Your task to perform on an android device: Open Chrome and go to settings Image 0: 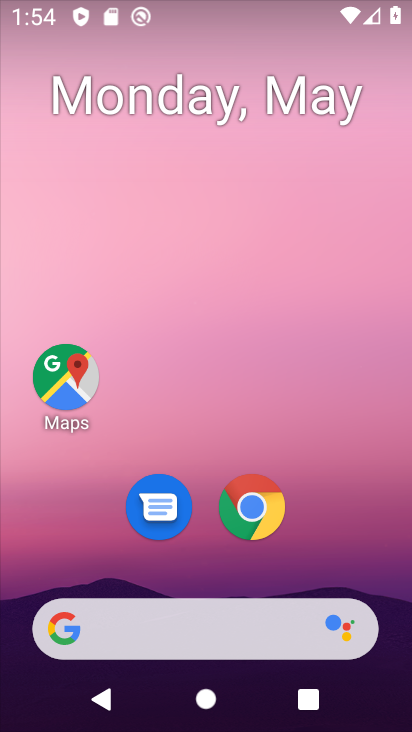
Step 0: click (266, 504)
Your task to perform on an android device: Open Chrome and go to settings Image 1: 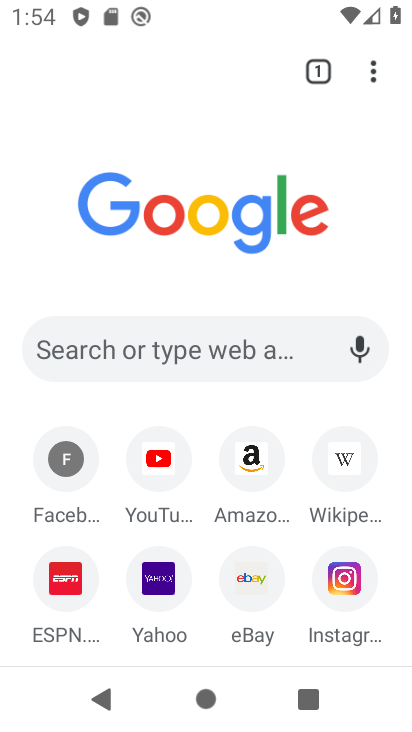
Step 1: click (376, 62)
Your task to perform on an android device: Open Chrome and go to settings Image 2: 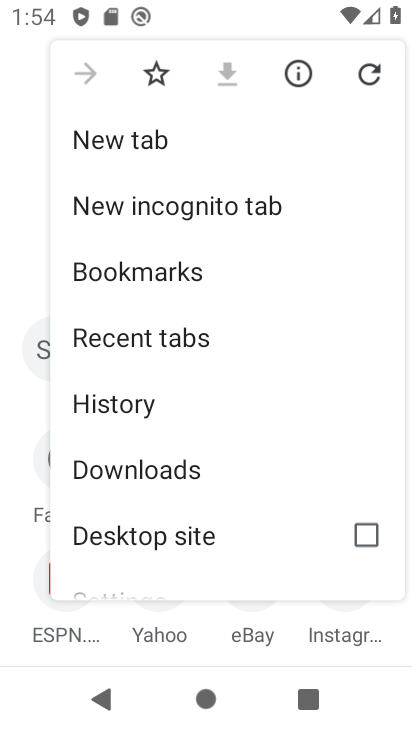
Step 2: drag from (225, 515) to (263, 118)
Your task to perform on an android device: Open Chrome and go to settings Image 3: 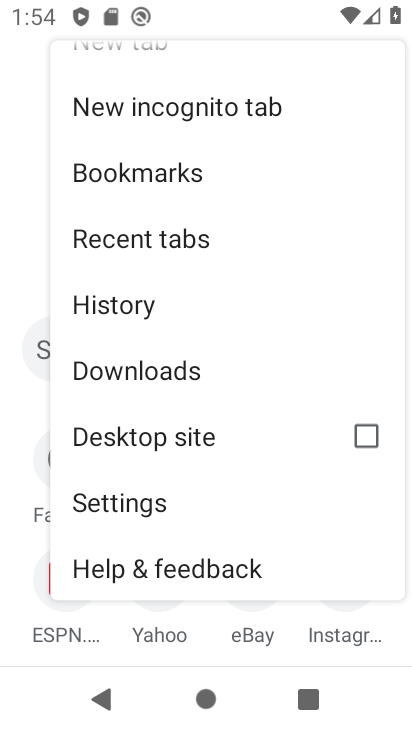
Step 3: click (147, 501)
Your task to perform on an android device: Open Chrome and go to settings Image 4: 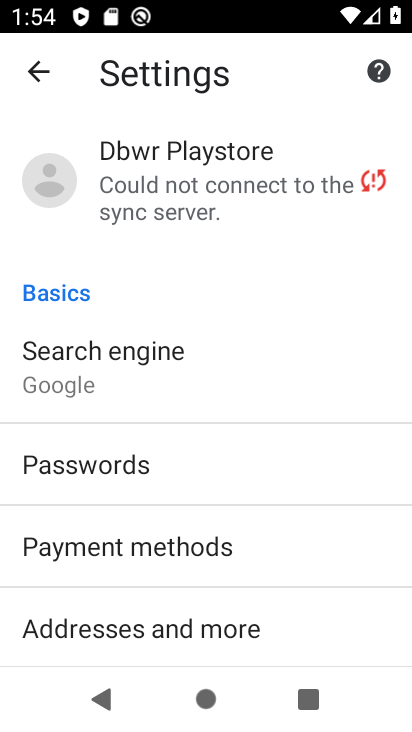
Step 4: task complete